Your task to perform on an android device: open sync settings in chrome Image 0: 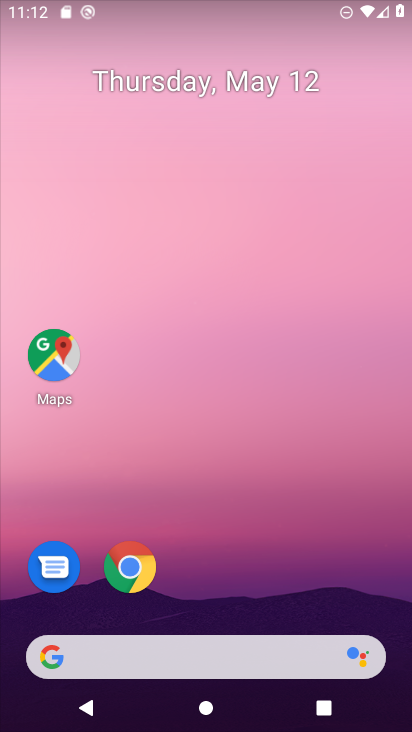
Step 0: drag from (241, 483) to (264, 206)
Your task to perform on an android device: open sync settings in chrome Image 1: 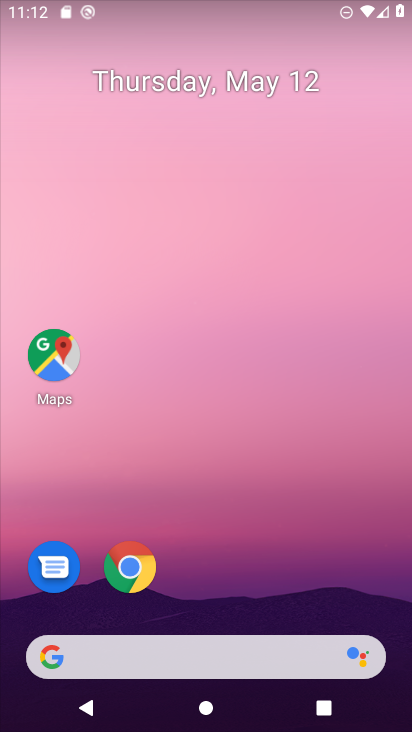
Step 1: drag from (229, 515) to (268, 240)
Your task to perform on an android device: open sync settings in chrome Image 2: 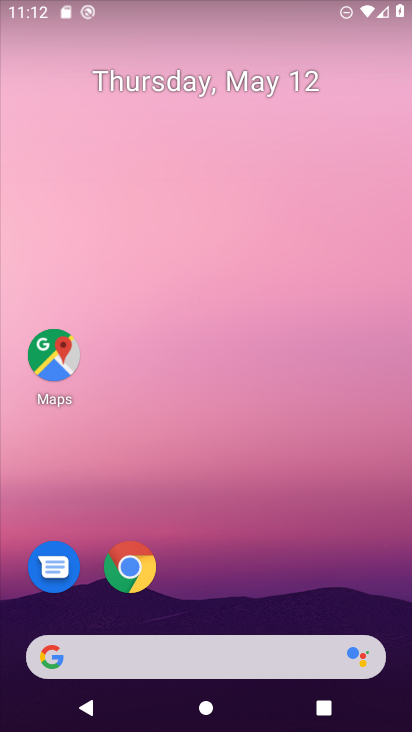
Step 2: drag from (220, 608) to (219, 318)
Your task to perform on an android device: open sync settings in chrome Image 3: 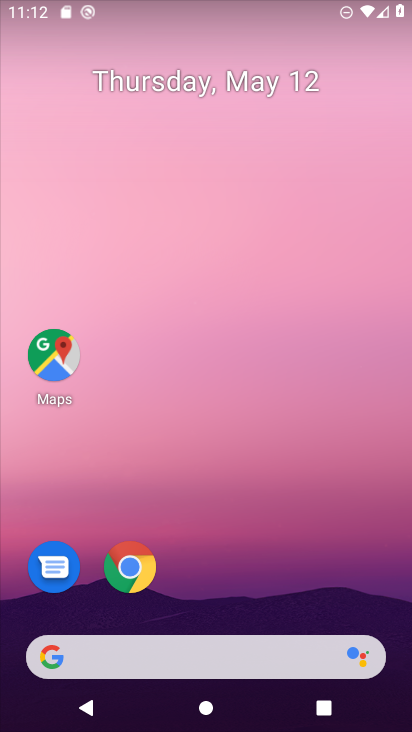
Step 3: drag from (213, 555) to (210, 200)
Your task to perform on an android device: open sync settings in chrome Image 4: 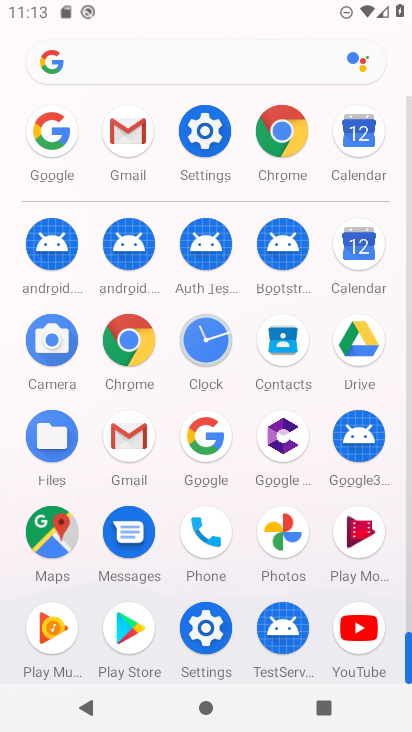
Step 4: click (270, 158)
Your task to perform on an android device: open sync settings in chrome Image 5: 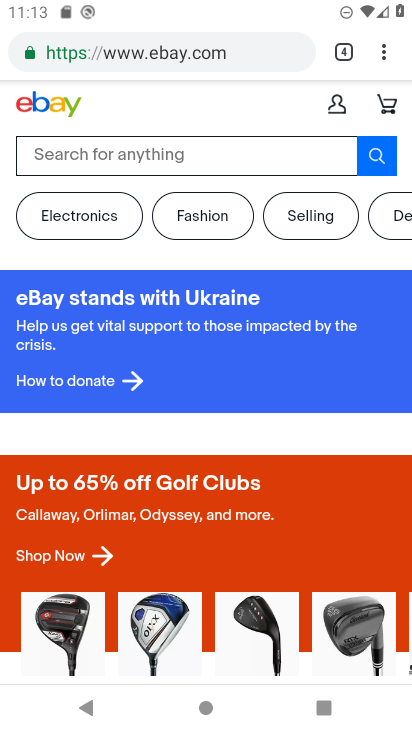
Step 5: click (388, 49)
Your task to perform on an android device: open sync settings in chrome Image 6: 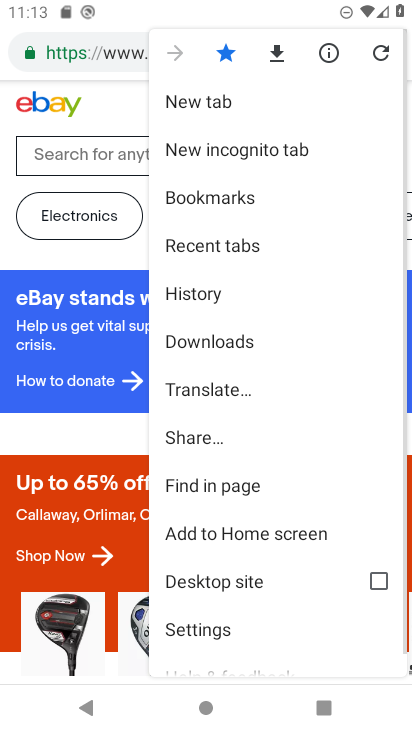
Step 6: drag from (239, 469) to (243, 222)
Your task to perform on an android device: open sync settings in chrome Image 7: 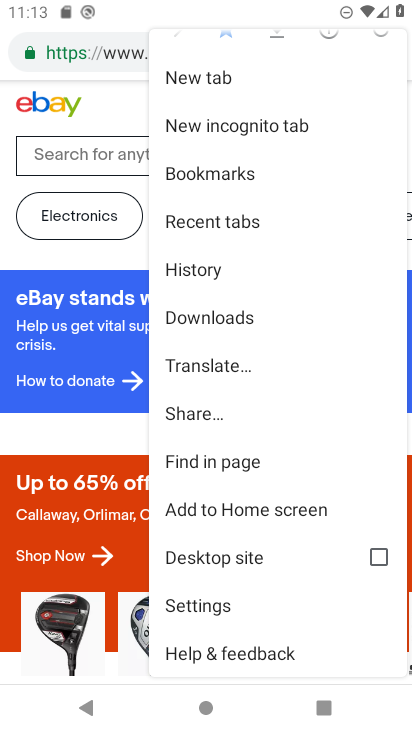
Step 7: click (208, 614)
Your task to perform on an android device: open sync settings in chrome Image 8: 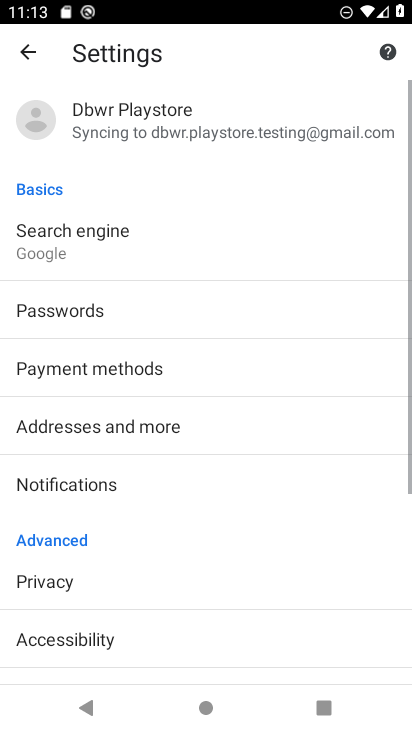
Step 8: drag from (198, 605) to (196, 387)
Your task to perform on an android device: open sync settings in chrome Image 9: 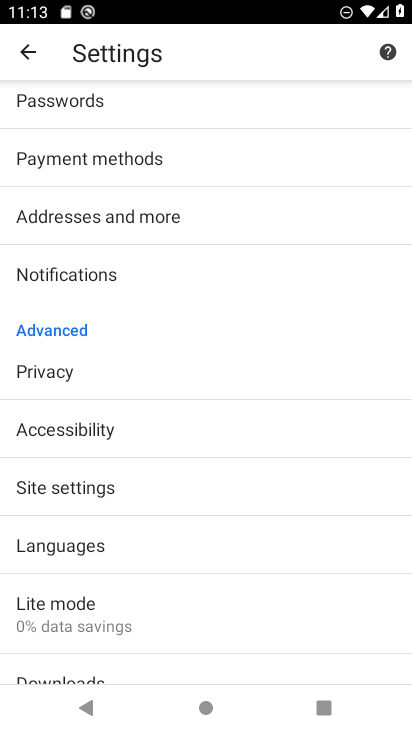
Step 9: drag from (134, 559) to (183, 350)
Your task to perform on an android device: open sync settings in chrome Image 10: 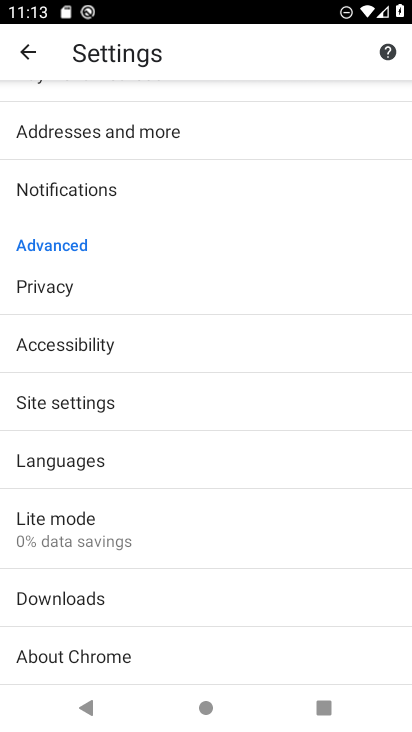
Step 10: drag from (73, 488) to (83, 364)
Your task to perform on an android device: open sync settings in chrome Image 11: 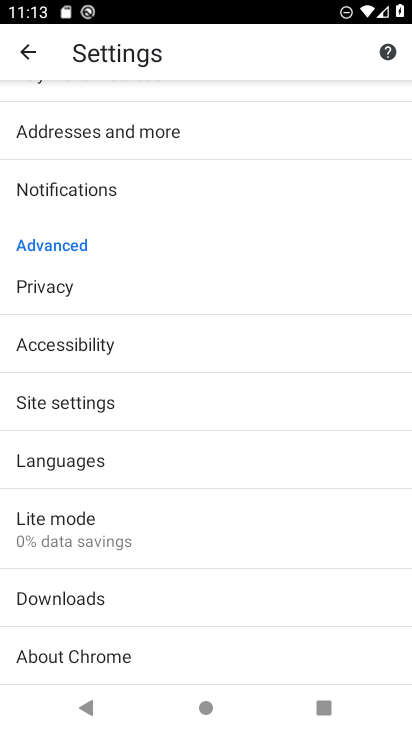
Step 11: drag from (116, 296) to (86, 622)
Your task to perform on an android device: open sync settings in chrome Image 12: 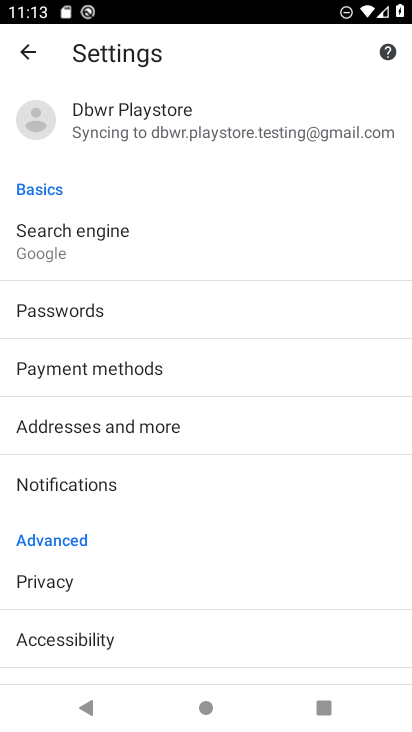
Step 12: click (215, 120)
Your task to perform on an android device: open sync settings in chrome Image 13: 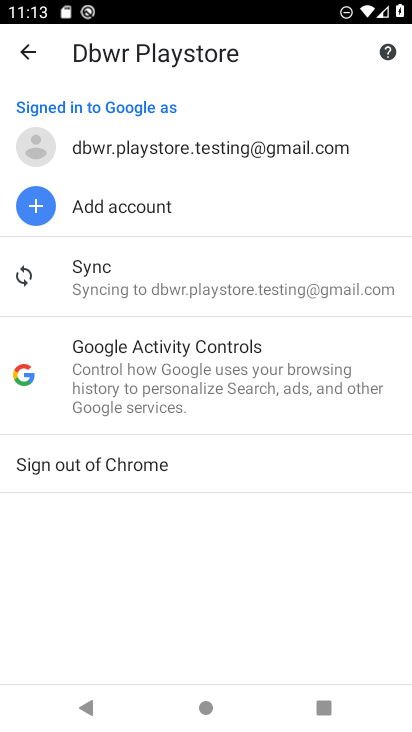
Step 13: click (150, 289)
Your task to perform on an android device: open sync settings in chrome Image 14: 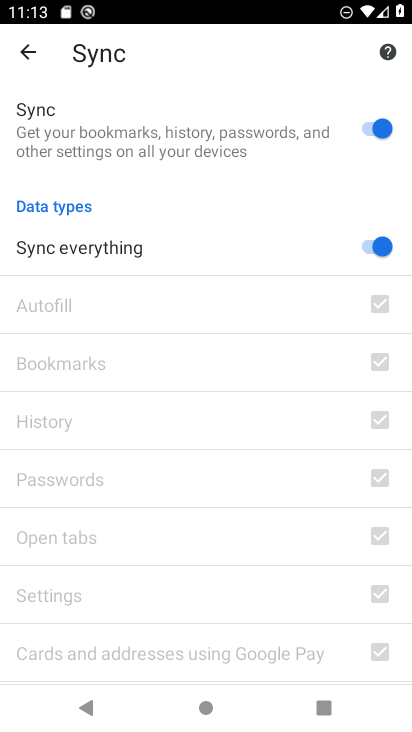
Step 14: task complete